Your task to perform on an android device: Go to Yahoo.com Image 0: 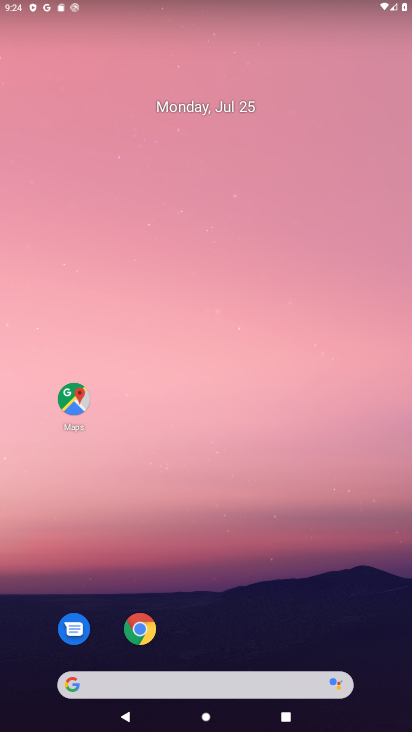
Step 0: click (131, 622)
Your task to perform on an android device: Go to Yahoo.com Image 1: 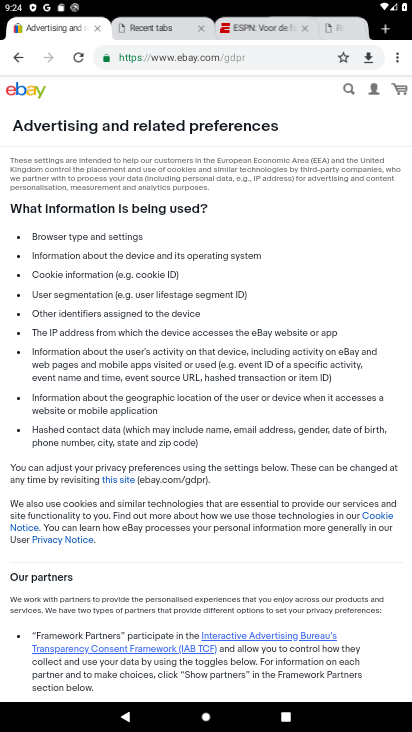
Step 1: click (382, 28)
Your task to perform on an android device: Go to Yahoo.com Image 2: 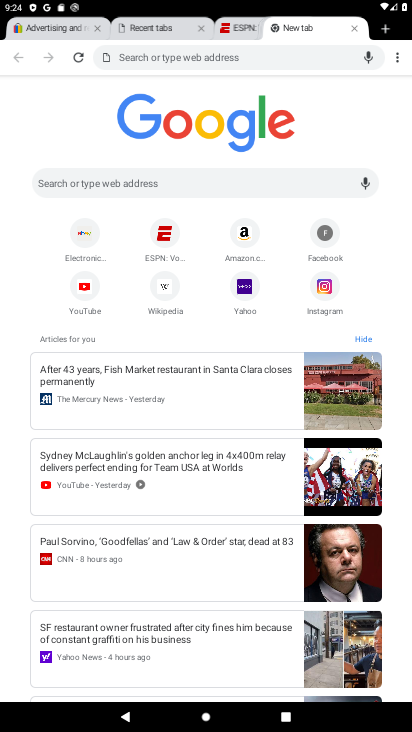
Step 2: click (235, 284)
Your task to perform on an android device: Go to Yahoo.com Image 3: 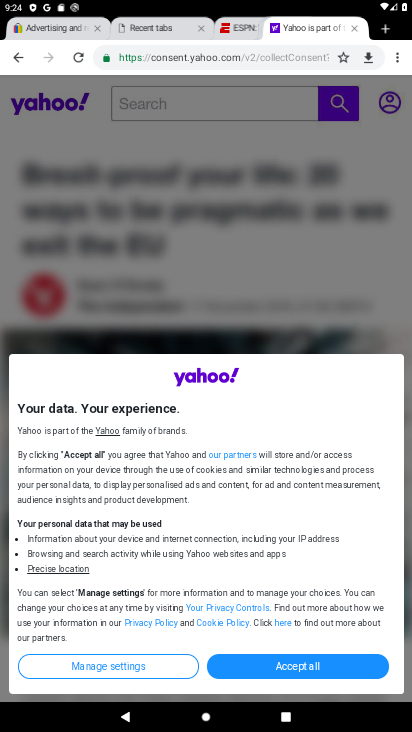
Step 3: task complete